Your task to perform on an android device: Go to Google Image 0: 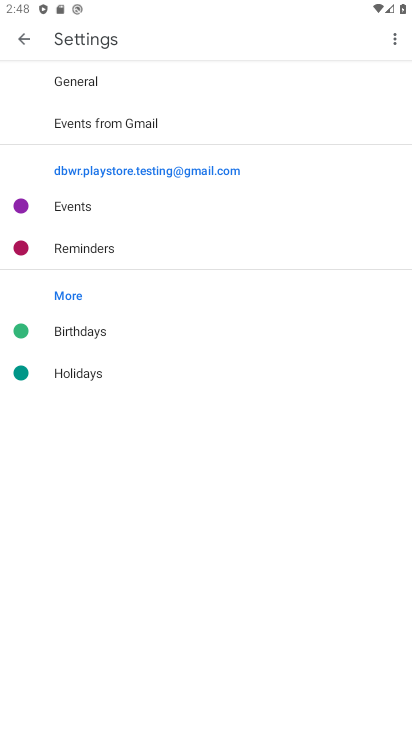
Step 0: press home button
Your task to perform on an android device: Go to Google Image 1: 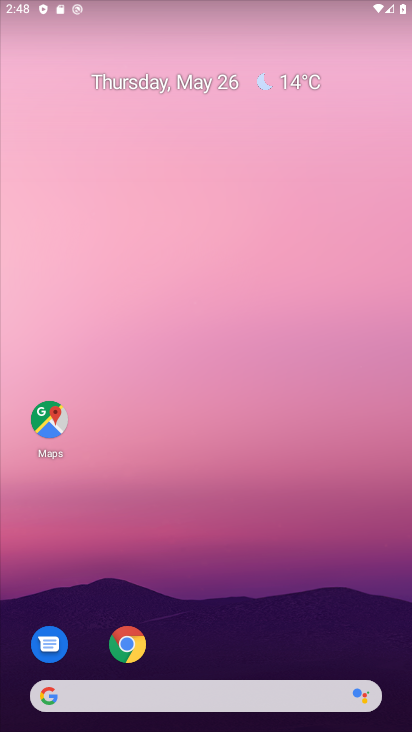
Step 1: drag from (318, 601) to (236, 234)
Your task to perform on an android device: Go to Google Image 2: 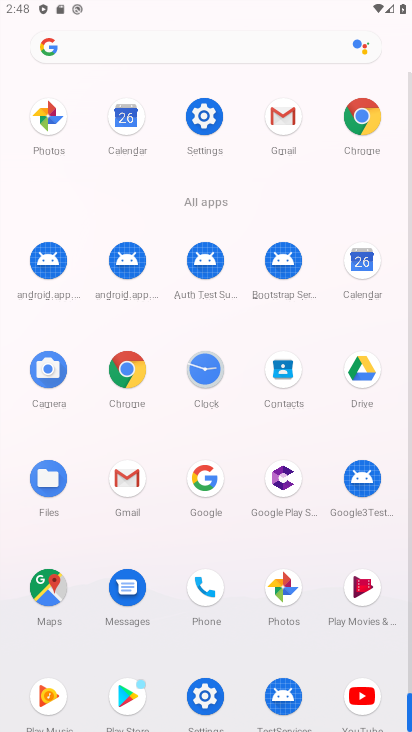
Step 2: click (212, 495)
Your task to perform on an android device: Go to Google Image 3: 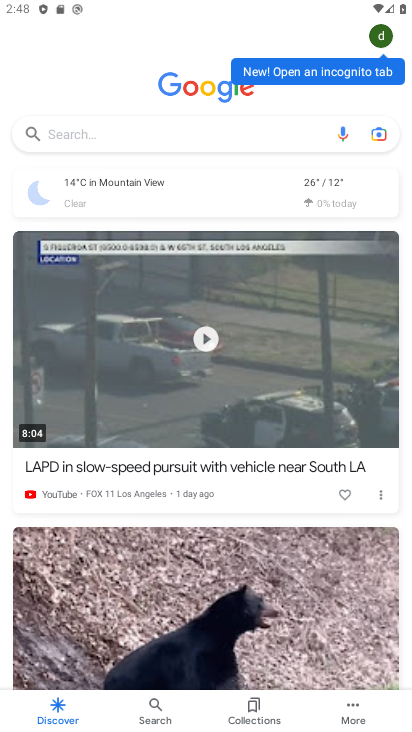
Step 3: task complete